Your task to perform on an android device: Search for Italian restaurants on Maps Image 0: 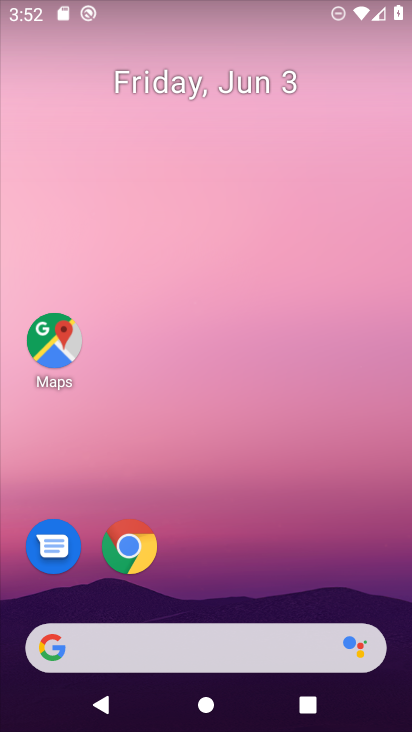
Step 0: click (51, 350)
Your task to perform on an android device: Search for Italian restaurants on Maps Image 1: 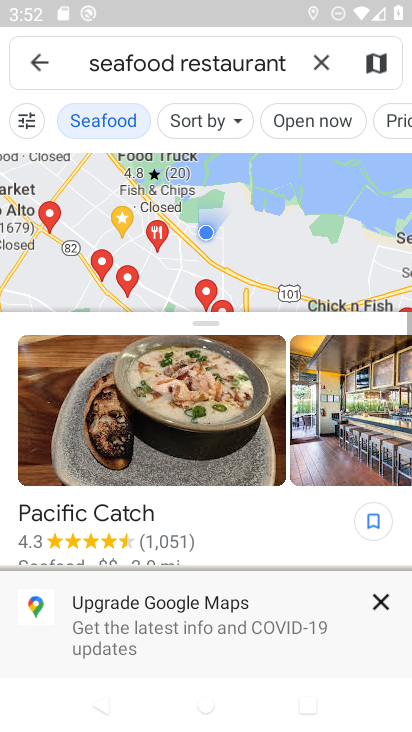
Step 1: click (323, 63)
Your task to perform on an android device: Search for Italian restaurants on Maps Image 2: 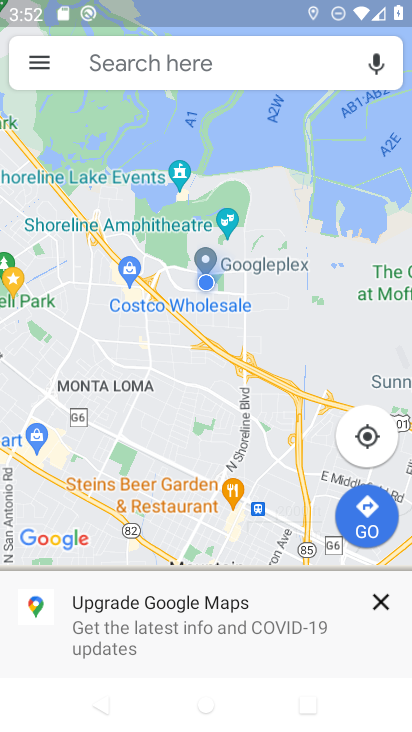
Step 2: click (246, 66)
Your task to perform on an android device: Search for Italian restaurants on Maps Image 3: 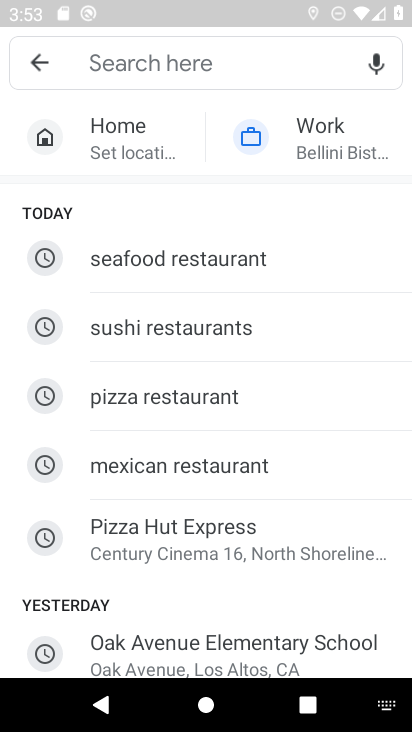
Step 3: type "italian restaurants"
Your task to perform on an android device: Search for Italian restaurants on Maps Image 4: 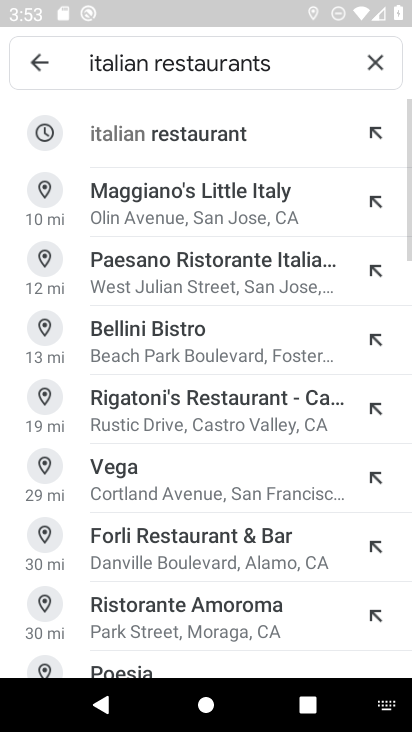
Step 4: click (239, 133)
Your task to perform on an android device: Search for Italian restaurants on Maps Image 5: 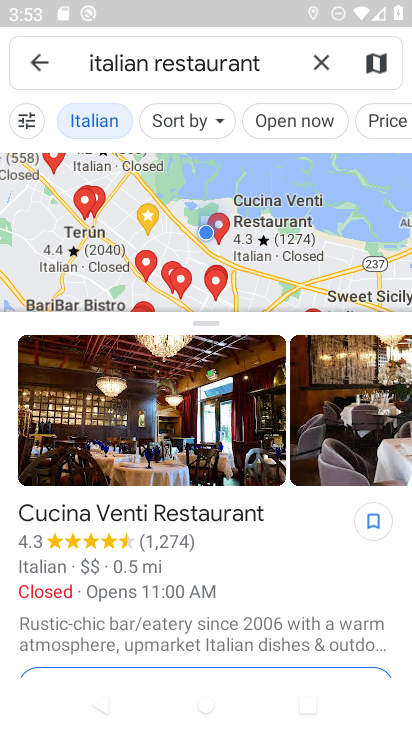
Step 5: task complete